Your task to perform on an android device: turn off location Image 0: 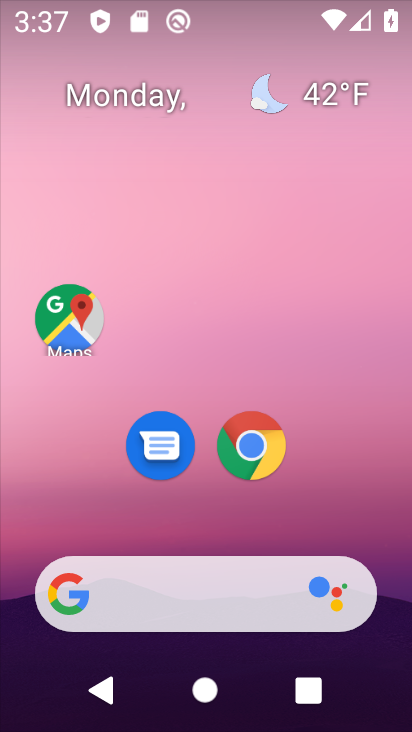
Step 0: drag from (13, 475) to (214, 45)
Your task to perform on an android device: turn off location Image 1: 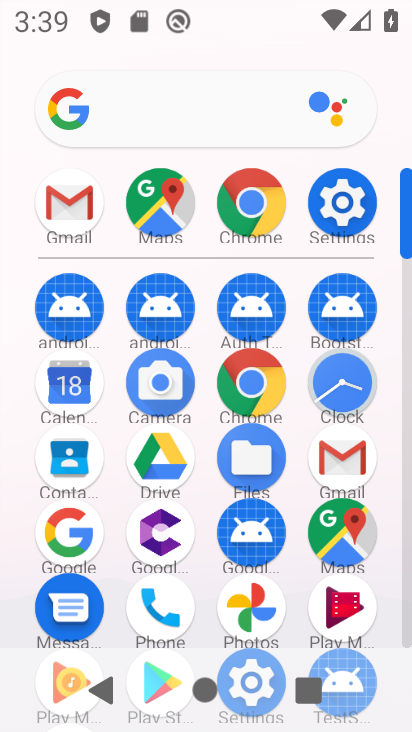
Step 1: click (347, 178)
Your task to perform on an android device: turn off location Image 2: 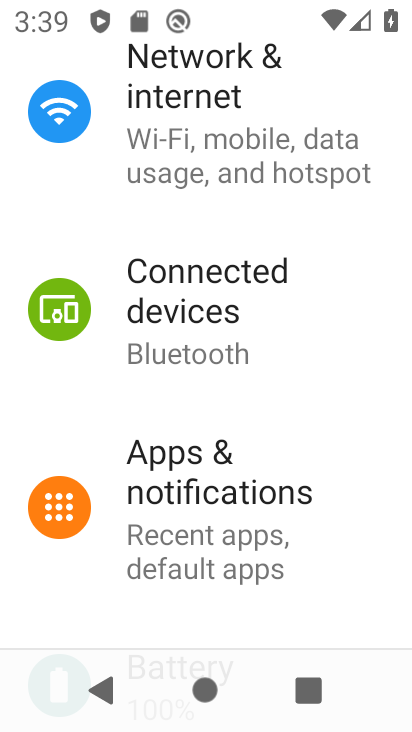
Step 2: drag from (162, 574) to (228, 185)
Your task to perform on an android device: turn off location Image 3: 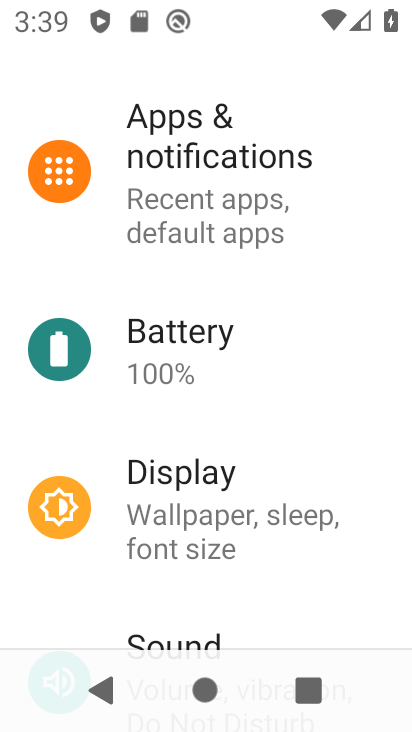
Step 3: drag from (208, 521) to (254, 129)
Your task to perform on an android device: turn off location Image 4: 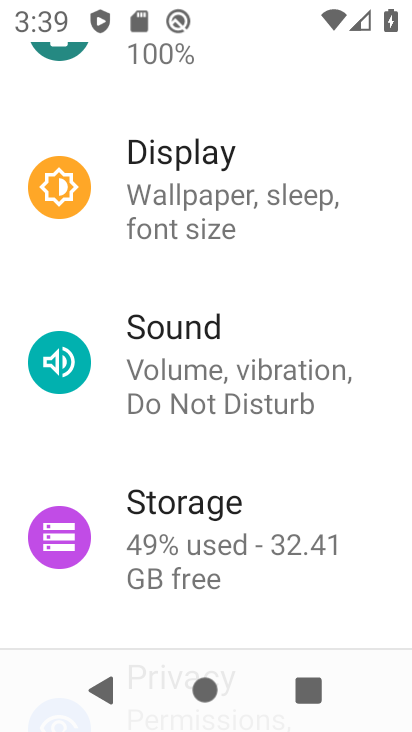
Step 4: drag from (186, 535) to (231, 102)
Your task to perform on an android device: turn off location Image 5: 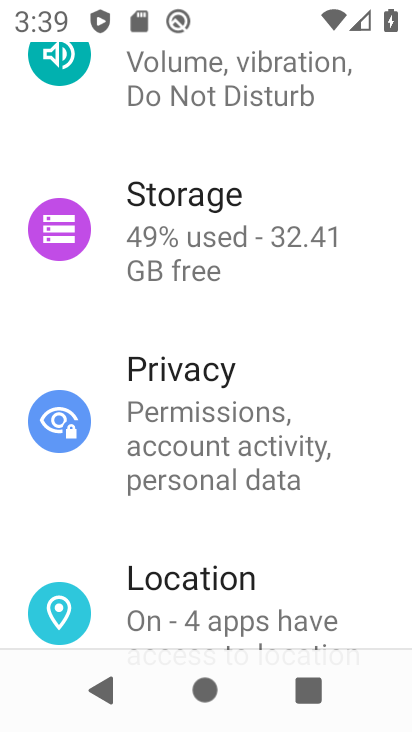
Step 5: click (216, 590)
Your task to perform on an android device: turn off location Image 6: 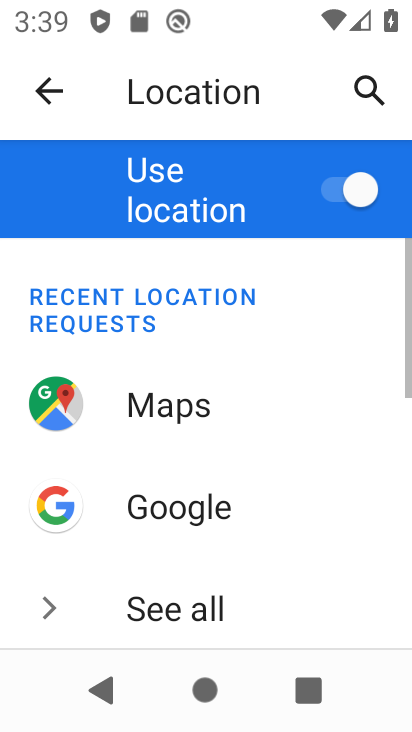
Step 6: click (301, 176)
Your task to perform on an android device: turn off location Image 7: 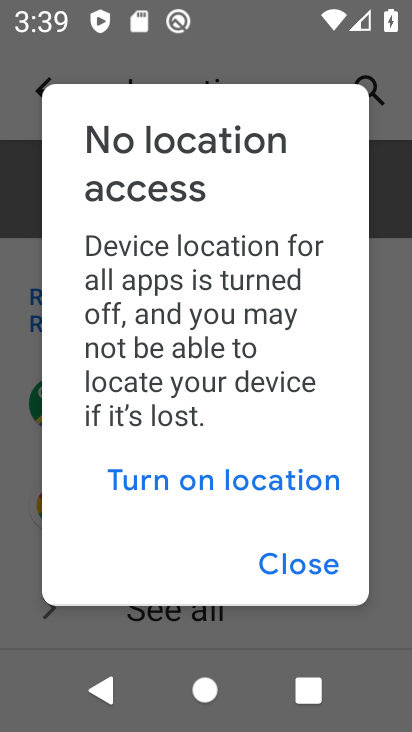
Step 7: task complete